Your task to perform on an android device: What's the weather today? Image 0: 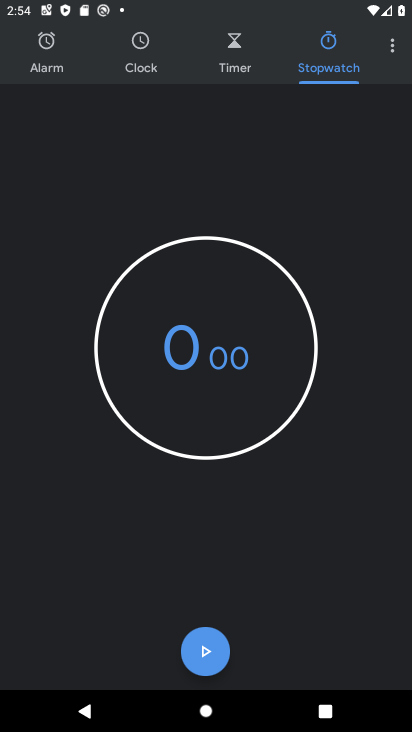
Step 0: press home button
Your task to perform on an android device: What's the weather today? Image 1: 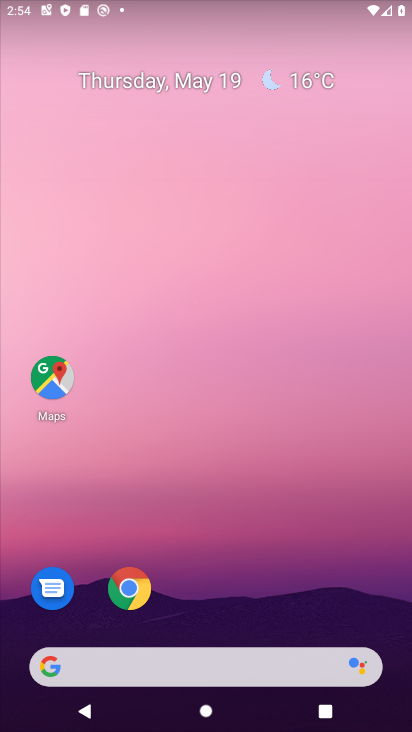
Step 1: drag from (234, 561) to (237, 180)
Your task to perform on an android device: What's the weather today? Image 2: 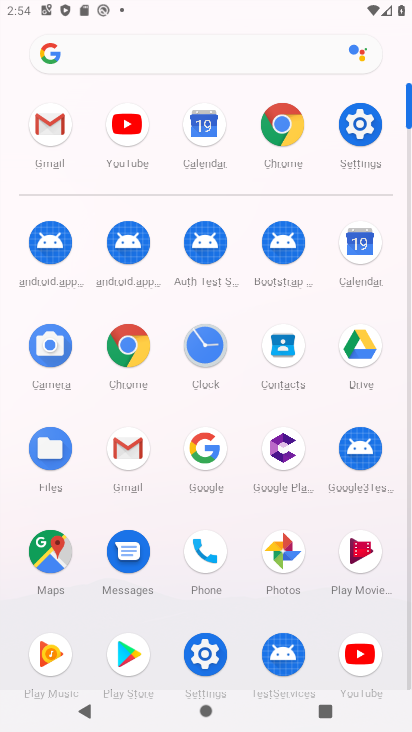
Step 2: press home button
Your task to perform on an android device: What's the weather today? Image 3: 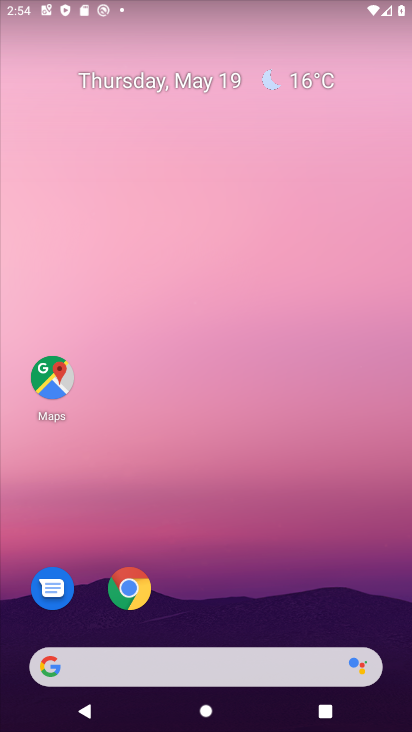
Step 3: click (310, 87)
Your task to perform on an android device: What's the weather today? Image 4: 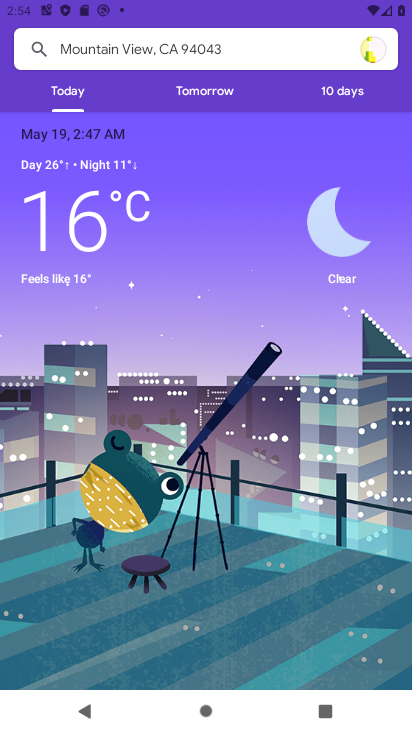
Step 4: task complete